Your task to perform on an android device: toggle pop-ups in chrome Image 0: 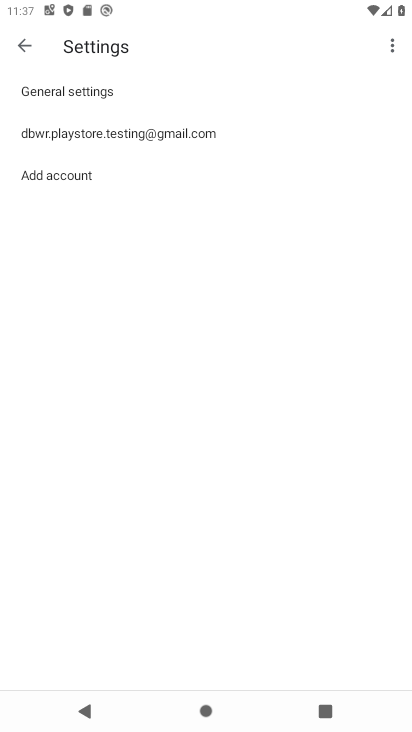
Step 0: press home button
Your task to perform on an android device: toggle pop-ups in chrome Image 1: 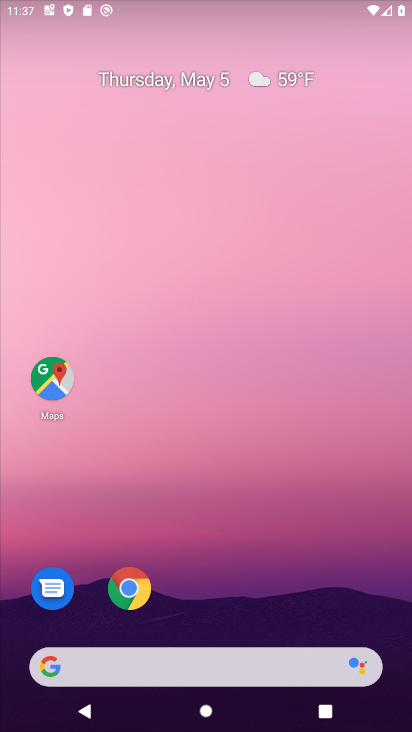
Step 1: drag from (220, 549) to (329, 56)
Your task to perform on an android device: toggle pop-ups in chrome Image 2: 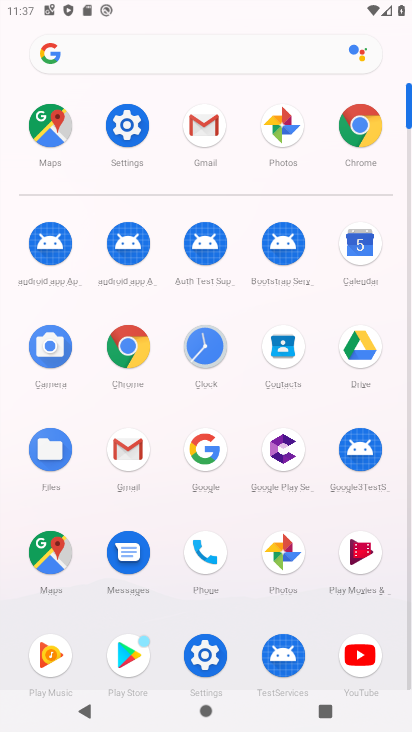
Step 2: click (371, 121)
Your task to perform on an android device: toggle pop-ups in chrome Image 3: 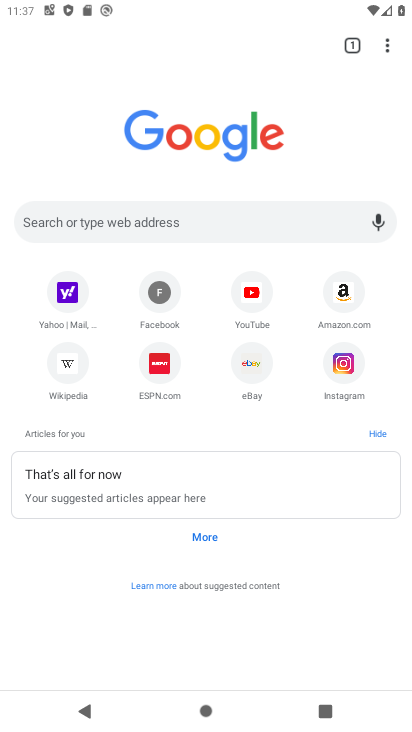
Step 3: drag from (385, 40) to (260, 380)
Your task to perform on an android device: toggle pop-ups in chrome Image 4: 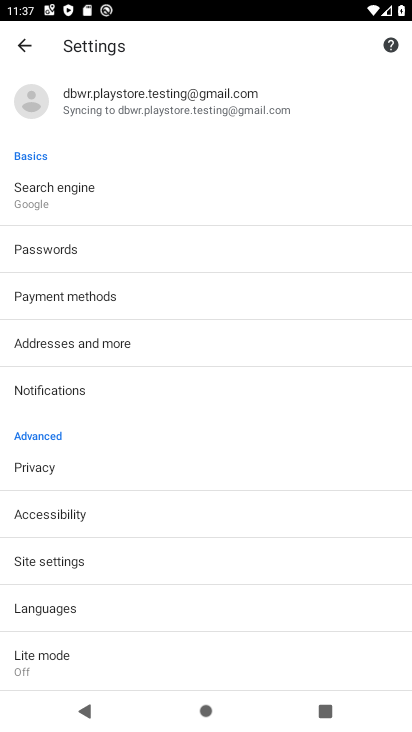
Step 4: click (207, 578)
Your task to perform on an android device: toggle pop-ups in chrome Image 5: 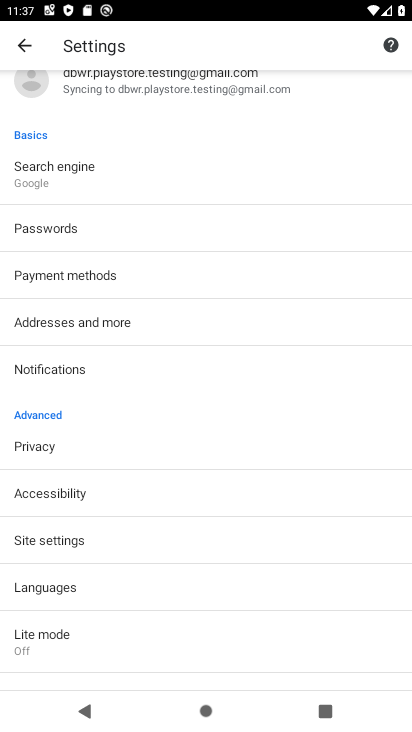
Step 5: click (204, 544)
Your task to perform on an android device: toggle pop-ups in chrome Image 6: 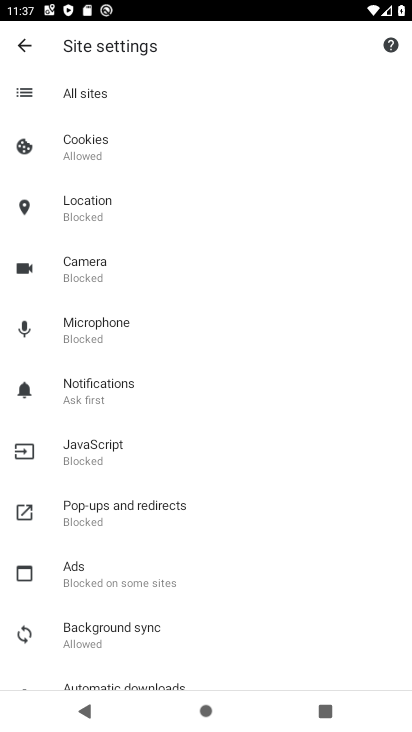
Step 6: click (186, 508)
Your task to perform on an android device: toggle pop-ups in chrome Image 7: 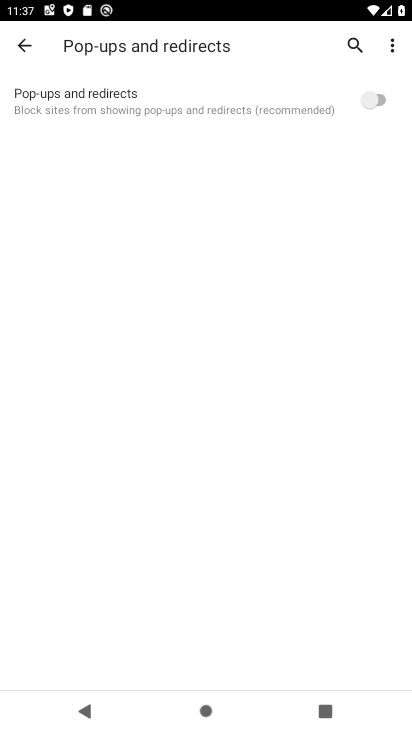
Step 7: click (375, 80)
Your task to perform on an android device: toggle pop-ups in chrome Image 8: 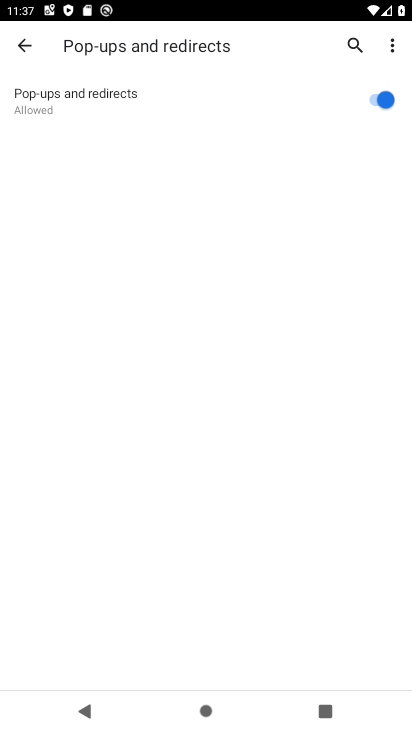
Step 8: task complete